Your task to perform on an android device: toggle notification dots Image 0: 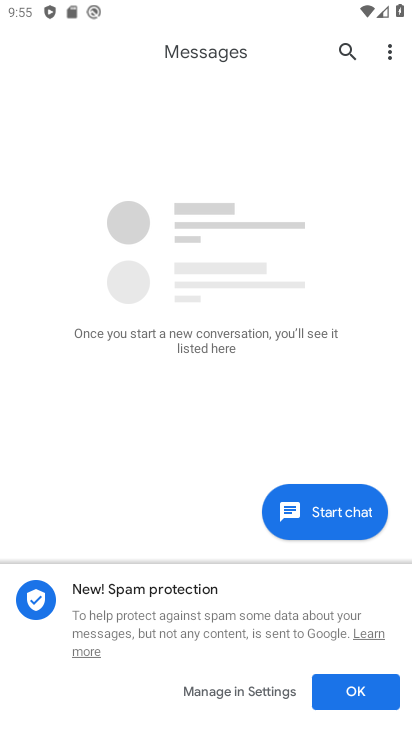
Step 0: press home button
Your task to perform on an android device: toggle notification dots Image 1: 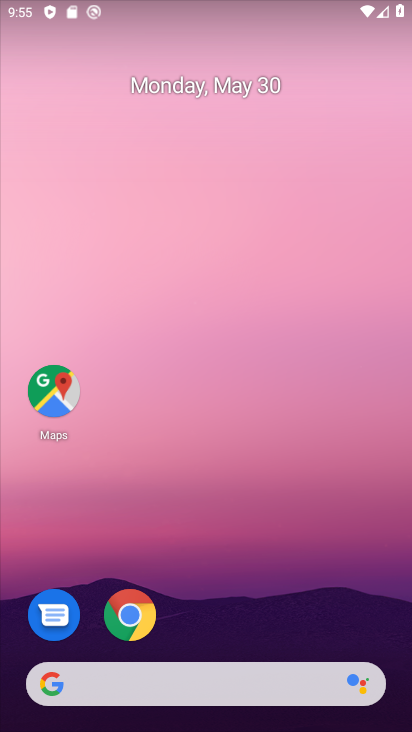
Step 1: drag from (217, 560) to (217, 250)
Your task to perform on an android device: toggle notification dots Image 2: 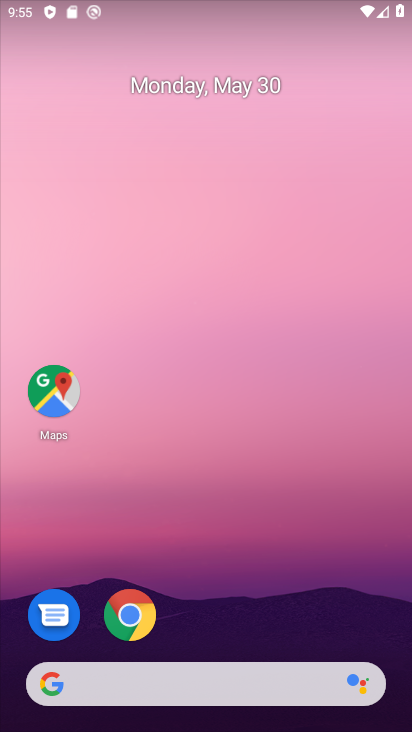
Step 2: drag from (203, 726) to (209, 77)
Your task to perform on an android device: toggle notification dots Image 3: 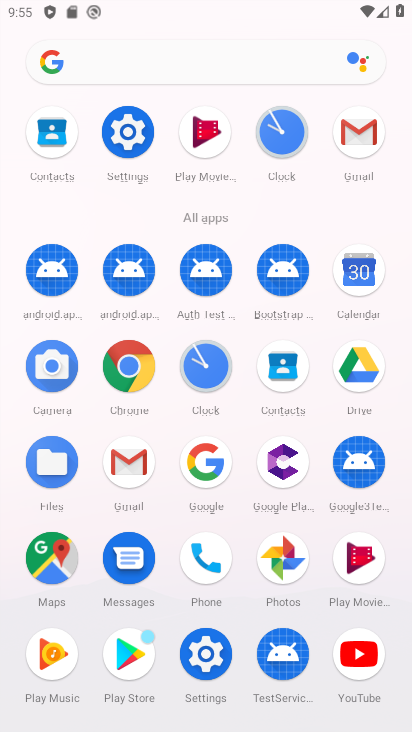
Step 3: click (129, 130)
Your task to perform on an android device: toggle notification dots Image 4: 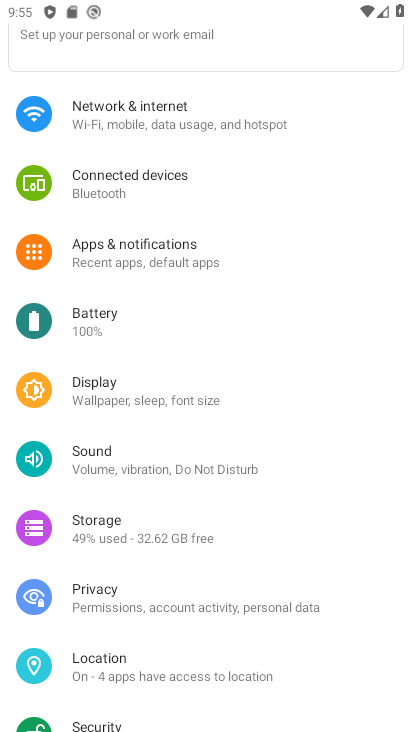
Step 4: click (118, 250)
Your task to perform on an android device: toggle notification dots Image 5: 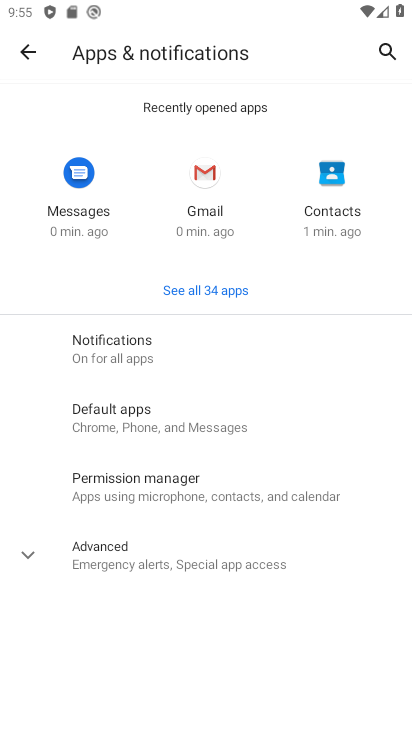
Step 5: click (116, 347)
Your task to perform on an android device: toggle notification dots Image 6: 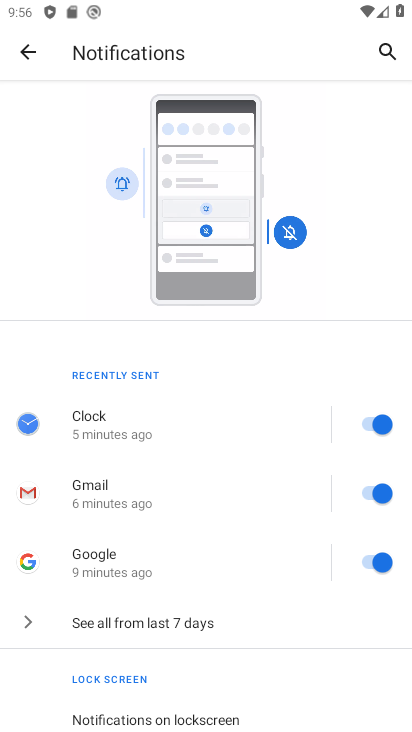
Step 6: drag from (197, 698) to (245, 317)
Your task to perform on an android device: toggle notification dots Image 7: 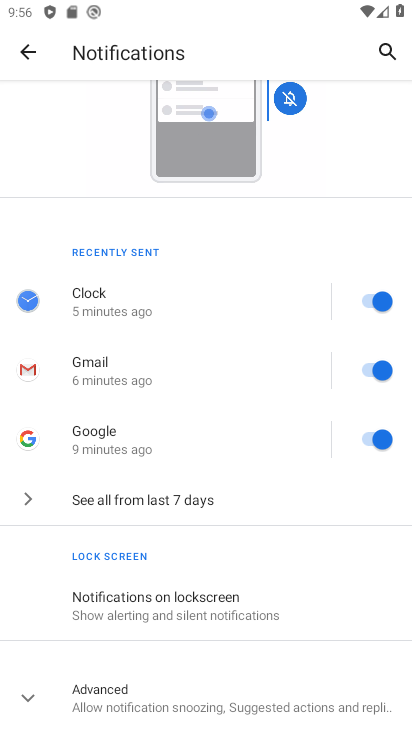
Step 7: click (119, 700)
Your task to perform on an android device: toggle notification dots Image 8: 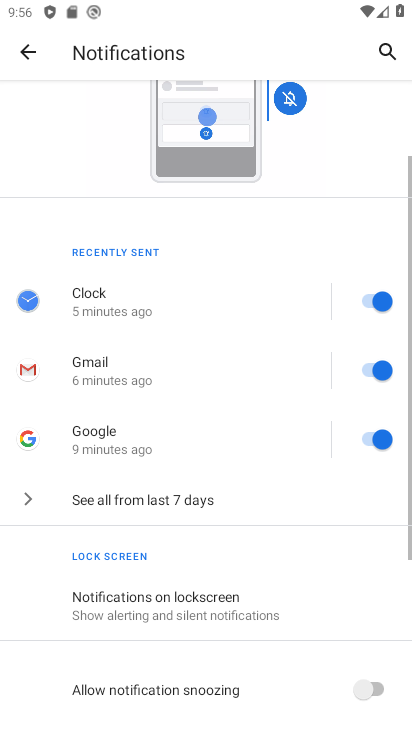
Step 8: drag from (192, 708) to (196, 396)
Your task to perform on an android device: toggle notification dots Image 9: 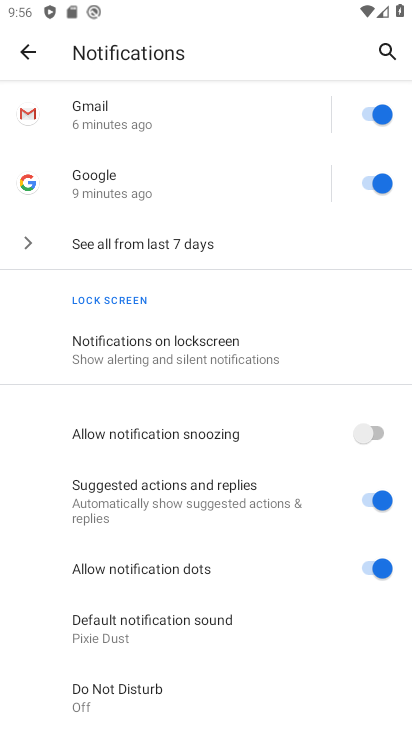
Step 9: drag from (263, 690) to (261, 337)
Your task to perform on an android device: toggle notification dots Image 10: 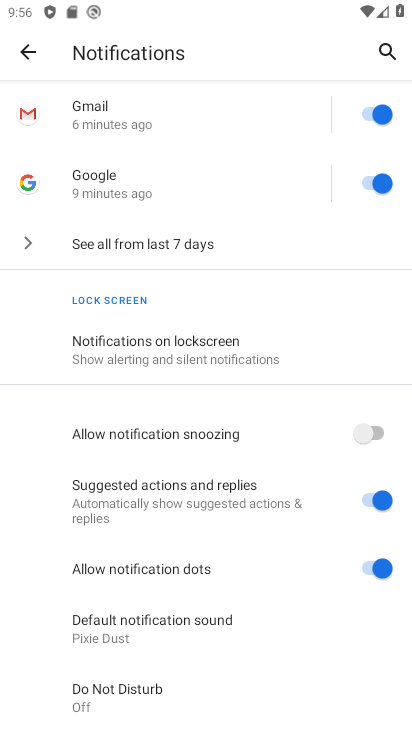
Step 10: click (364, 569)
Your task to perform on an android device: toggle notification dots Image 11: 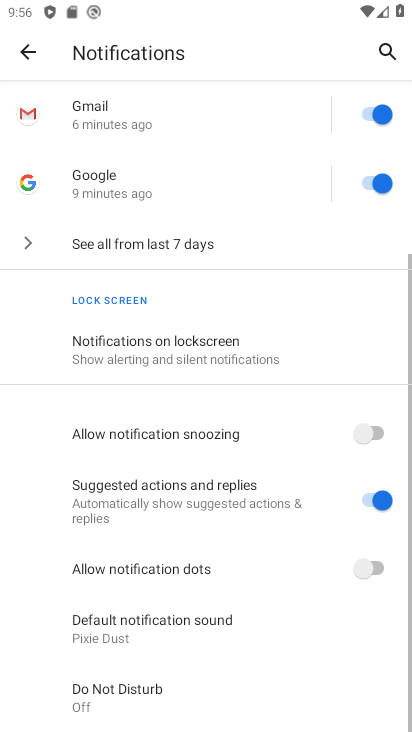
Step 11: task complete